Your task to perform on an android device: Open the web browser Image 0: 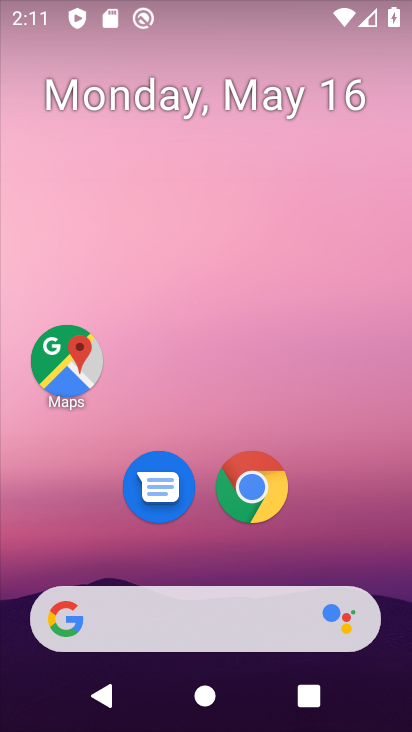
Step 0: click (254, 489)
Your task to perform on an android device: Open the web browser Image 1: 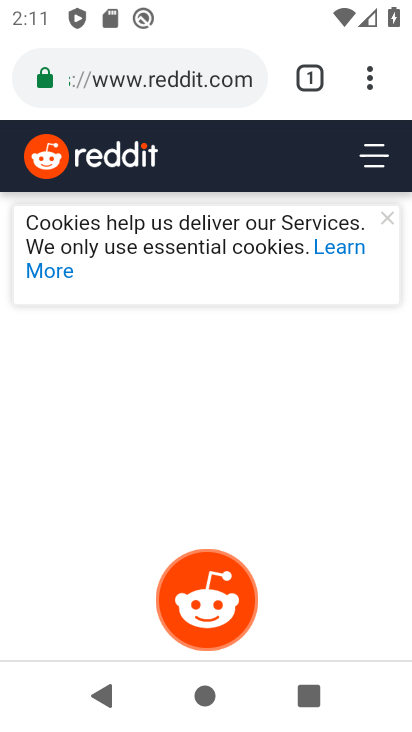
Step 1: task complete